Your task to perform on an android device: turn notification dots off Image 0: 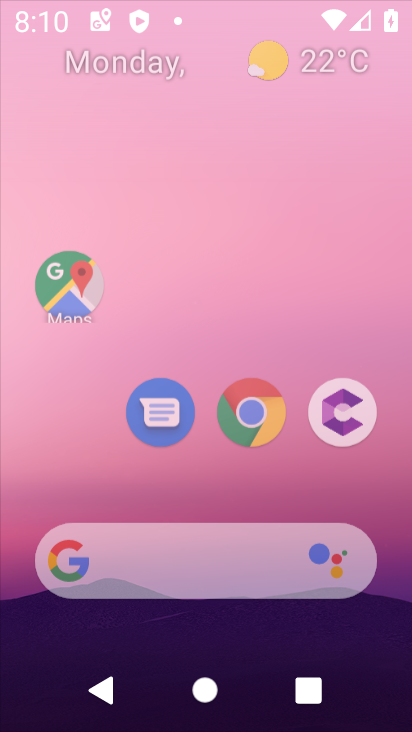
Step 0: press home button
Your task to perform on an android device: turn notification dots off Image 1: 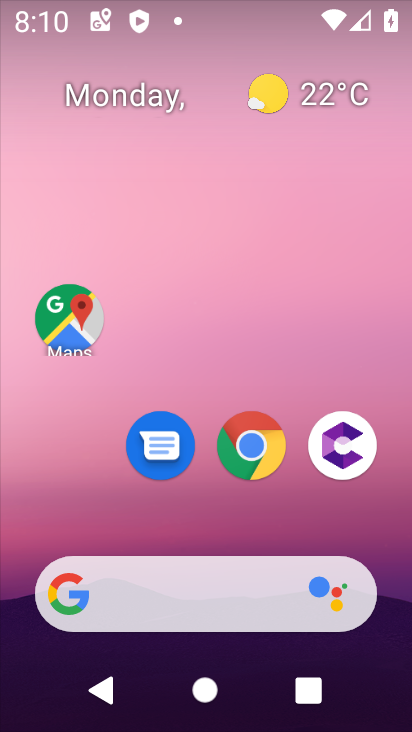
Step 1: drag from (215, 529) to (155, 8)
Your task to perform on an android device: turn notification dots off Image 2: 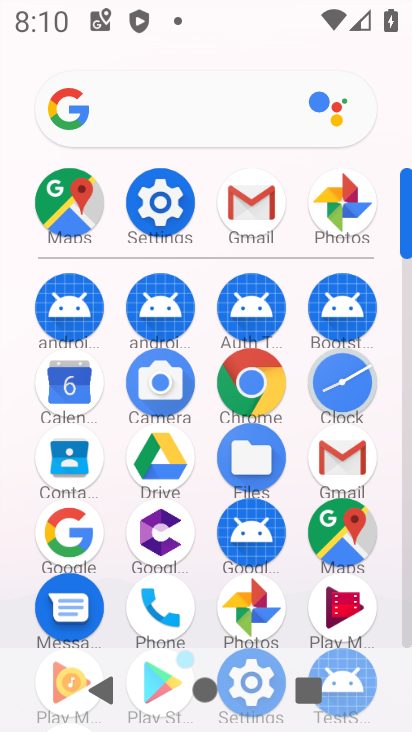
Step 2: click (167, 208)
Your task to perform on an android device: turn notification dots off Image 3: 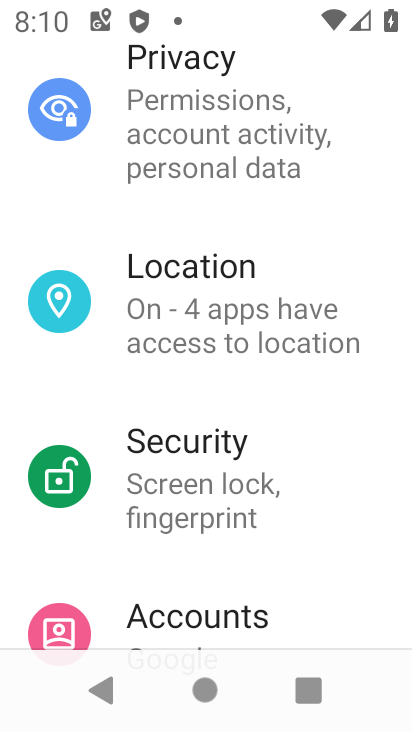
Step 3: drag from (376, 135) to (399, 718)
Your task to perform on an android device: turn notification dots off Image 4: 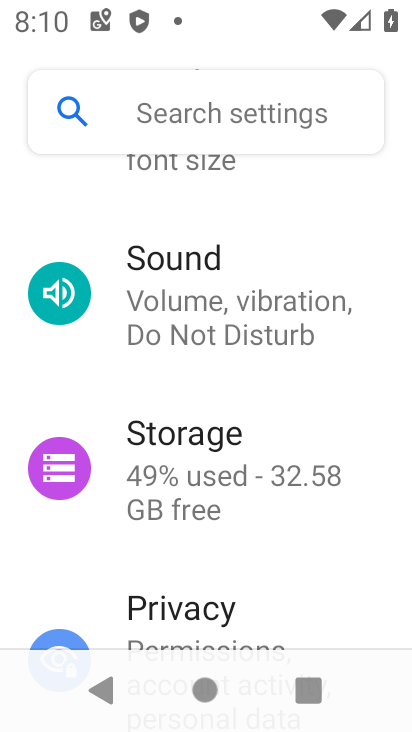
Step 4: drag from (308, 186) to (333, 664)
Your task to perform on an android device: turn notification dots off Image 5: 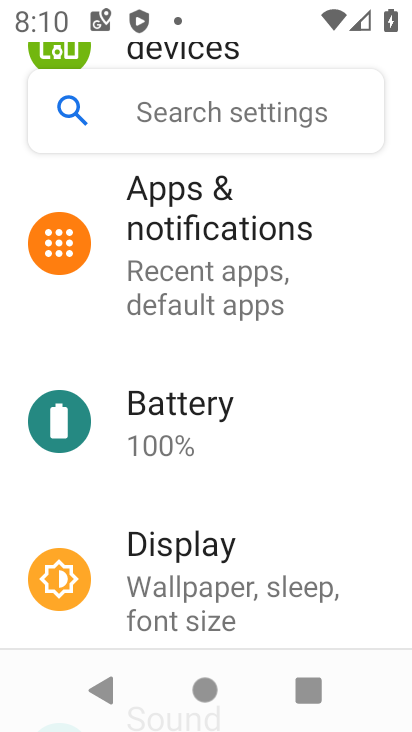
Step 5: click (166, 207)
Your task to perform on an android device: turn notification dots off Image 6: 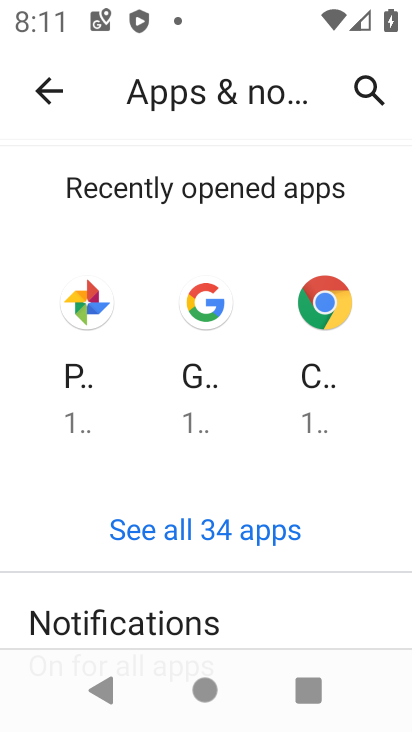
Step 6: drag from (347, 556) to (336, 113)
Your task to perform on an android device: turn notification dots off Image 7: 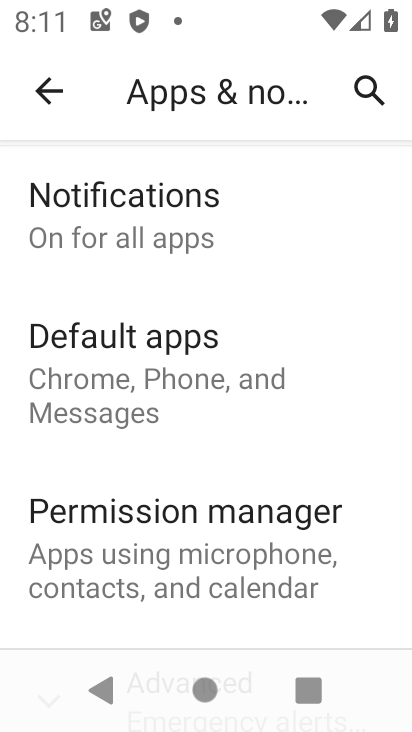
Step 7: click (119, 199)
Your task to perform on an android device: turn notification dots off Image 8: 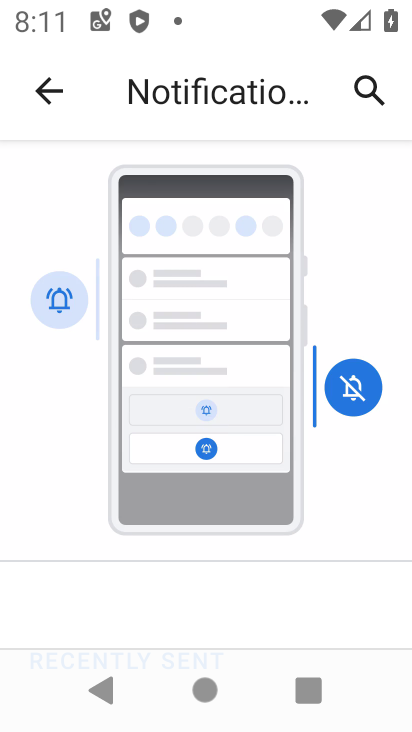
Step 8: drag from (352, 469) to (289, 6)
Your task to perform on an android device: turn notification dots off Image 9: 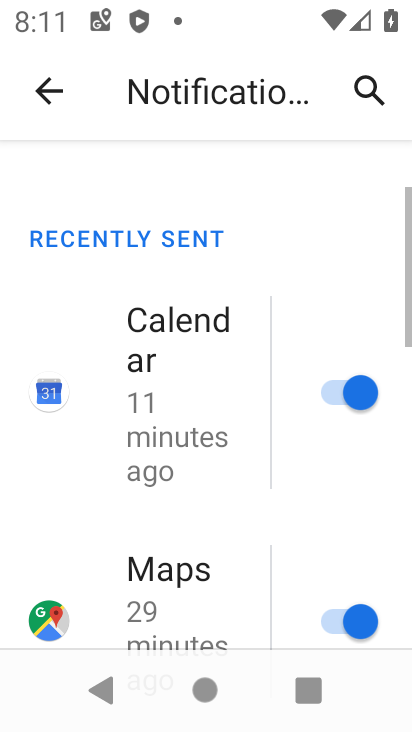
Step 9: drag from (313, 554) to (274, 87)
Your task to perform on an android device: turn notification dots off Image 10: 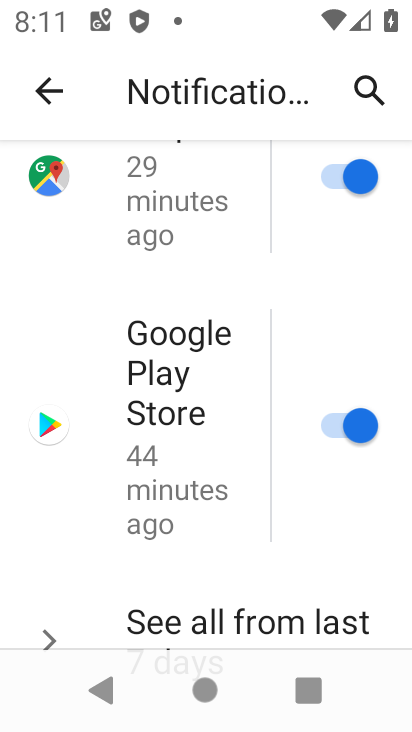
Step 10: drag from (270, 566) to (277, 69)
Your task to perform on an android device: turn notification dots off Image 11: 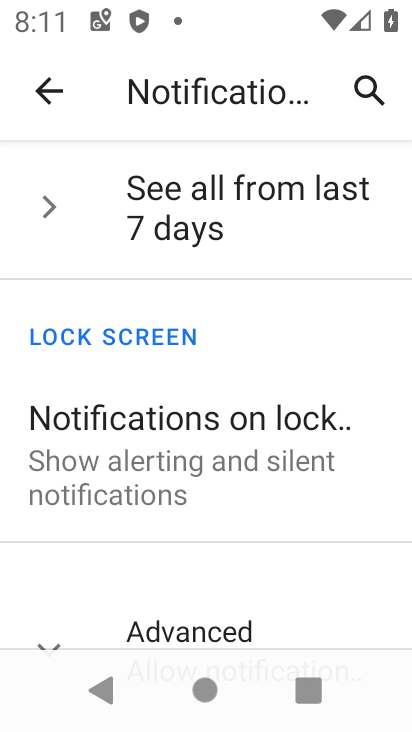
Step 11: drag from (249, 600) to (236, 366)
Your task to perform on an android device: turn notification dots off Image 12: 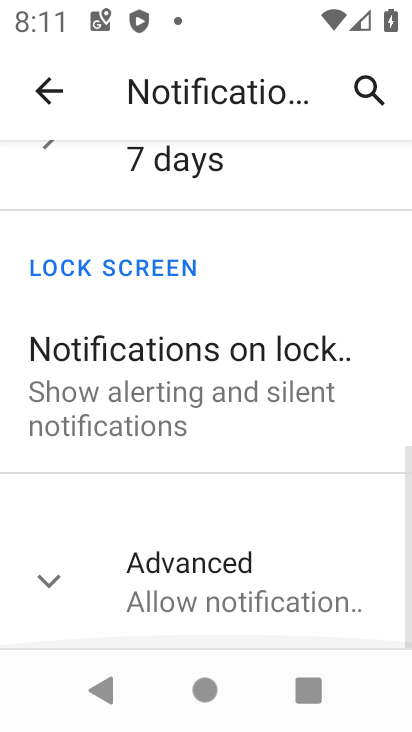
Step 12: click (226, 586)
Your task to perform on an android device: turn notification dots off Image 13: 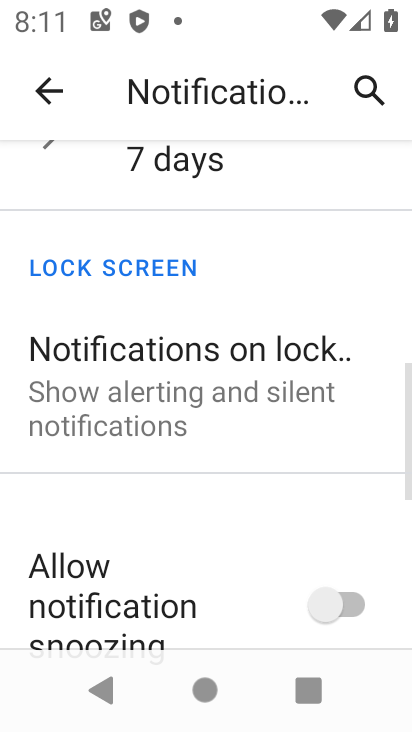
Step 13: drag from (193, 521) to (183, 130)
Your task to perform on an android device: turn notification dots off Image 14: 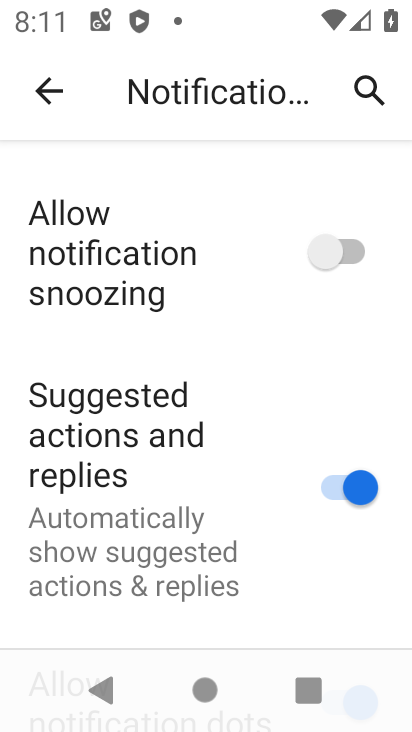
Step 14: drag from (291, 596) to (267, 157)
Your task to perform on an android device: turn notification dots off Image 15: 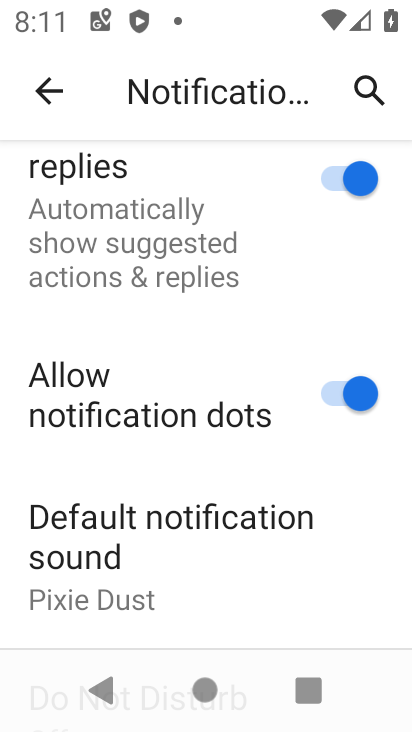
Step 15: click (368, 384)
Your task to perform on an android device: turn notification dots off Image 16: 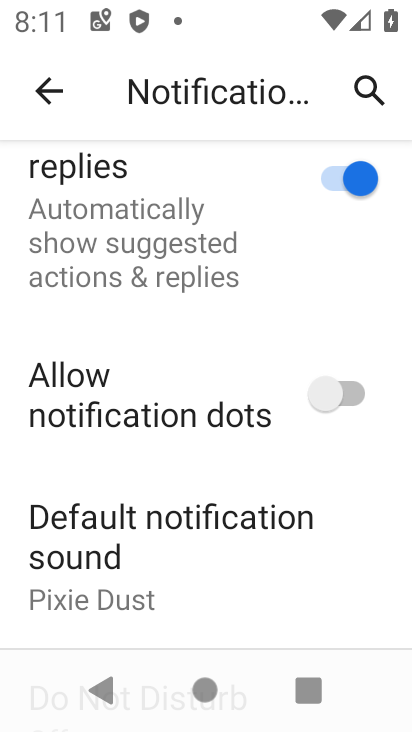
Step 16: task complete